Your task to perform on an android device: change the clock display to digital Image 0: 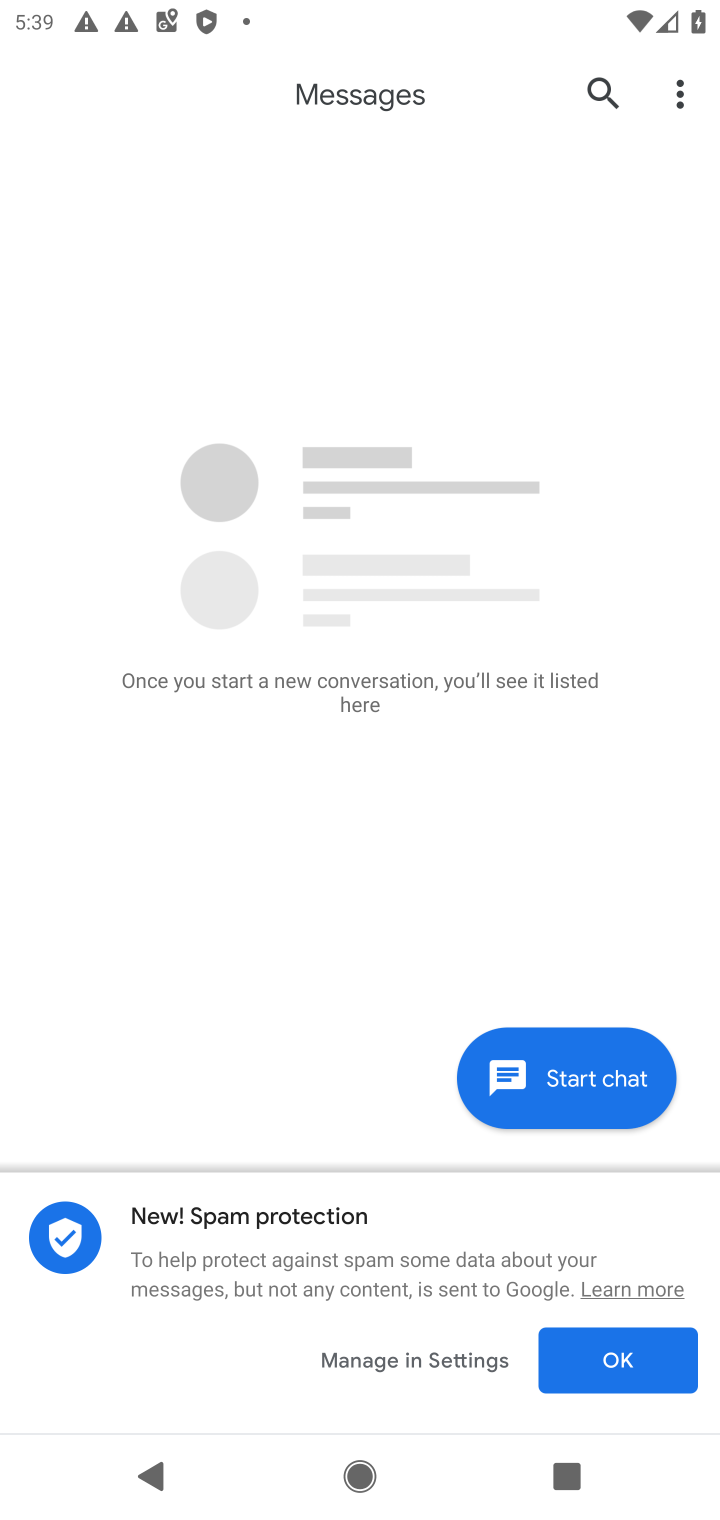
Step 0: press home button
Your task to perform on an android device: change the clock display to digital Image 1: 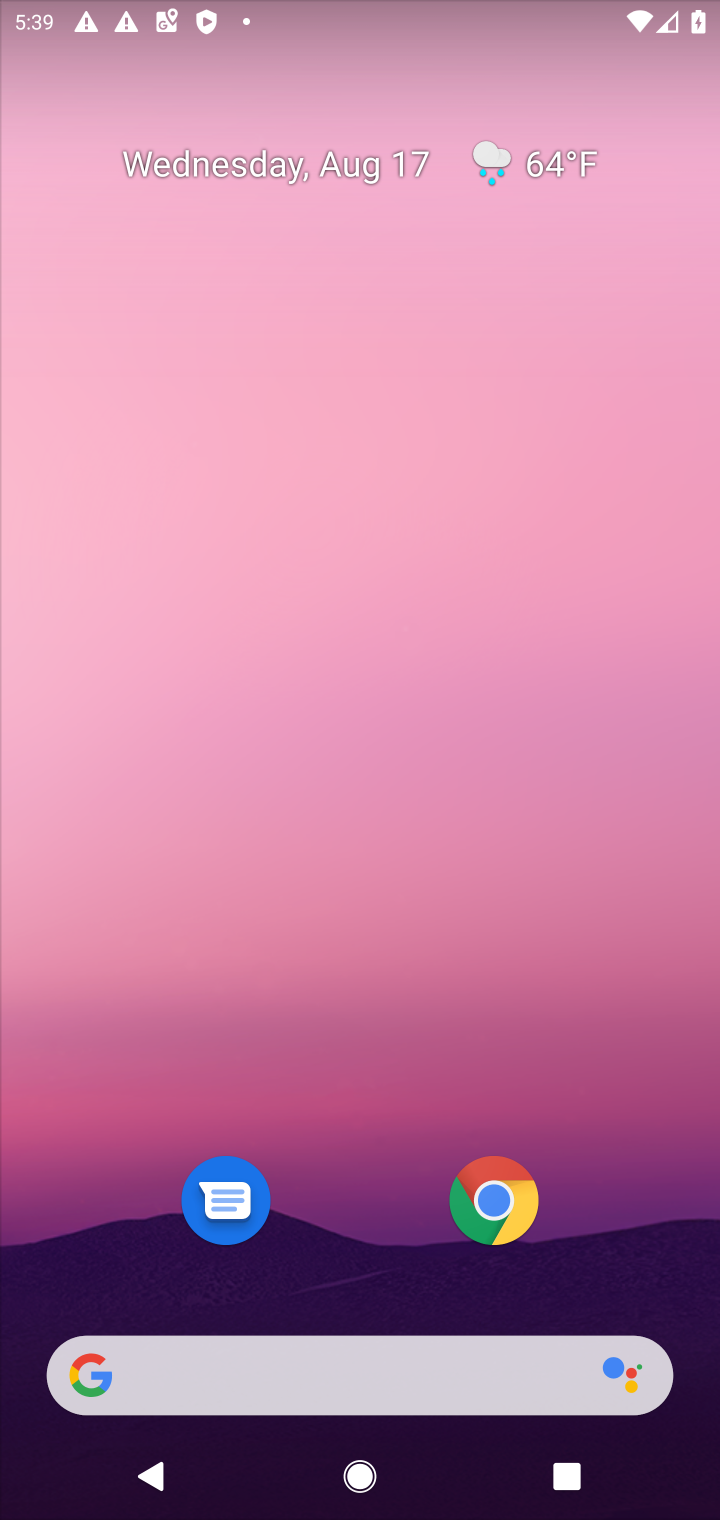
Step 1: drag from (381, 640) to (381, 184)
Your task to perform on an android device: change the clock display to digital Image 2: 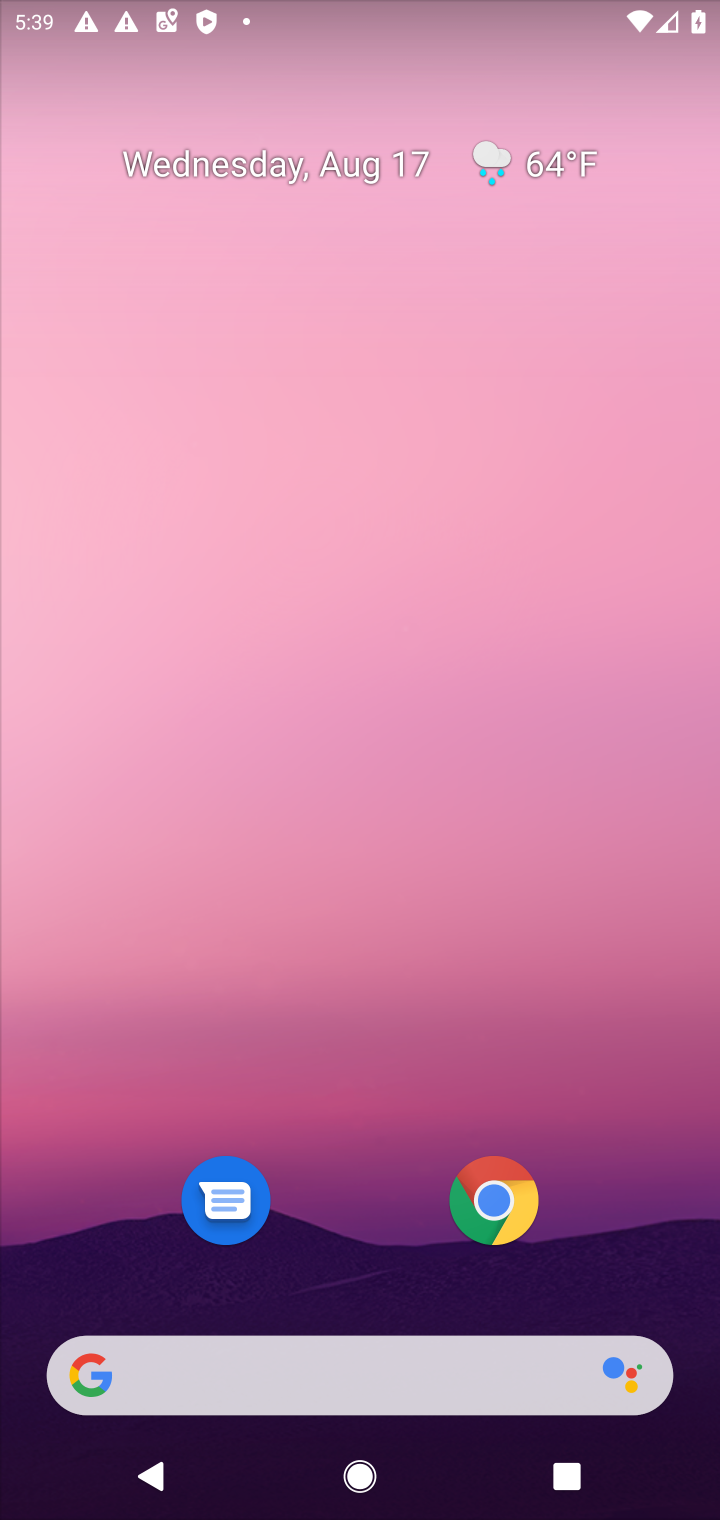
Step 2: drag from (362, 1279) to (367, 0)
Your task to perform on an android device: change the clock display to digital Image 3: 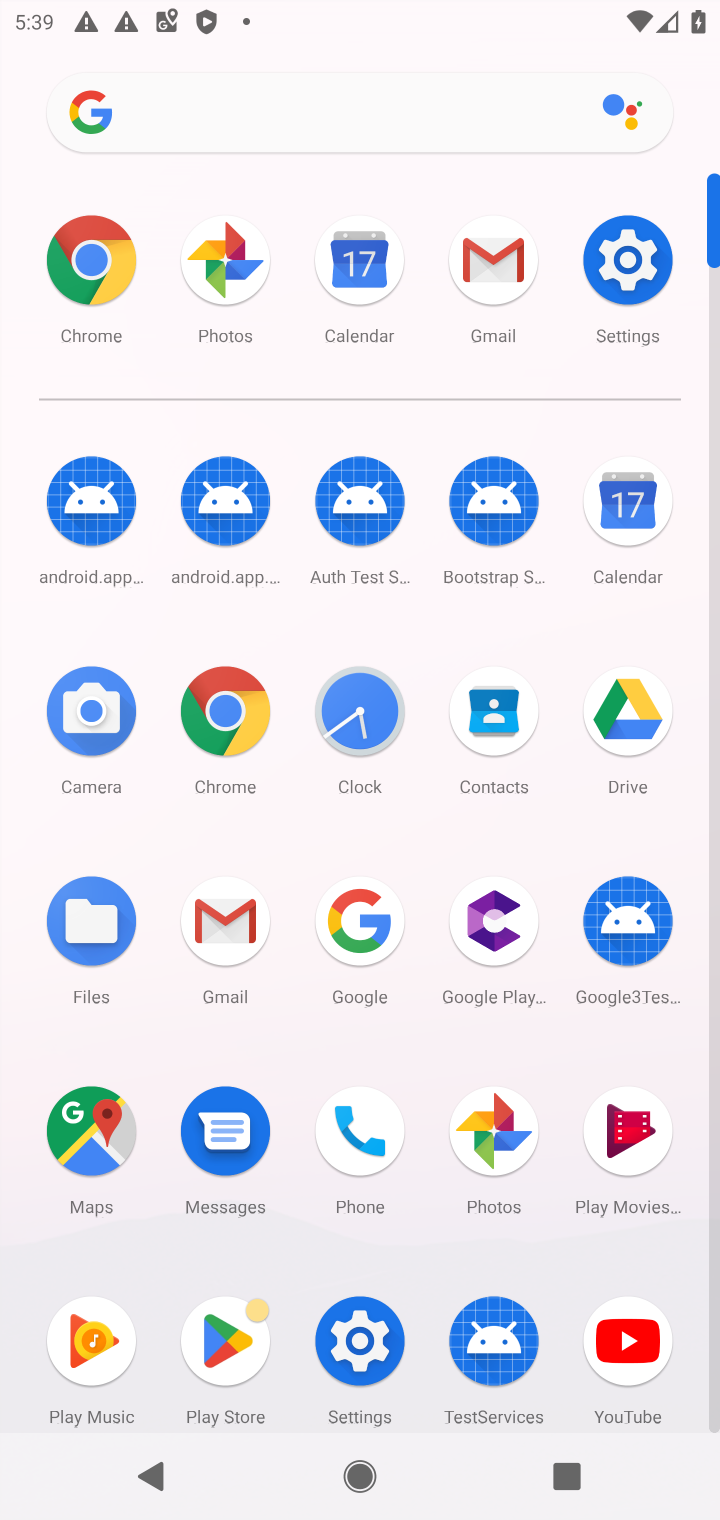
Step 3: click (345, 705)
Your task to perform on an android device: change the clock display to digital Image 4: 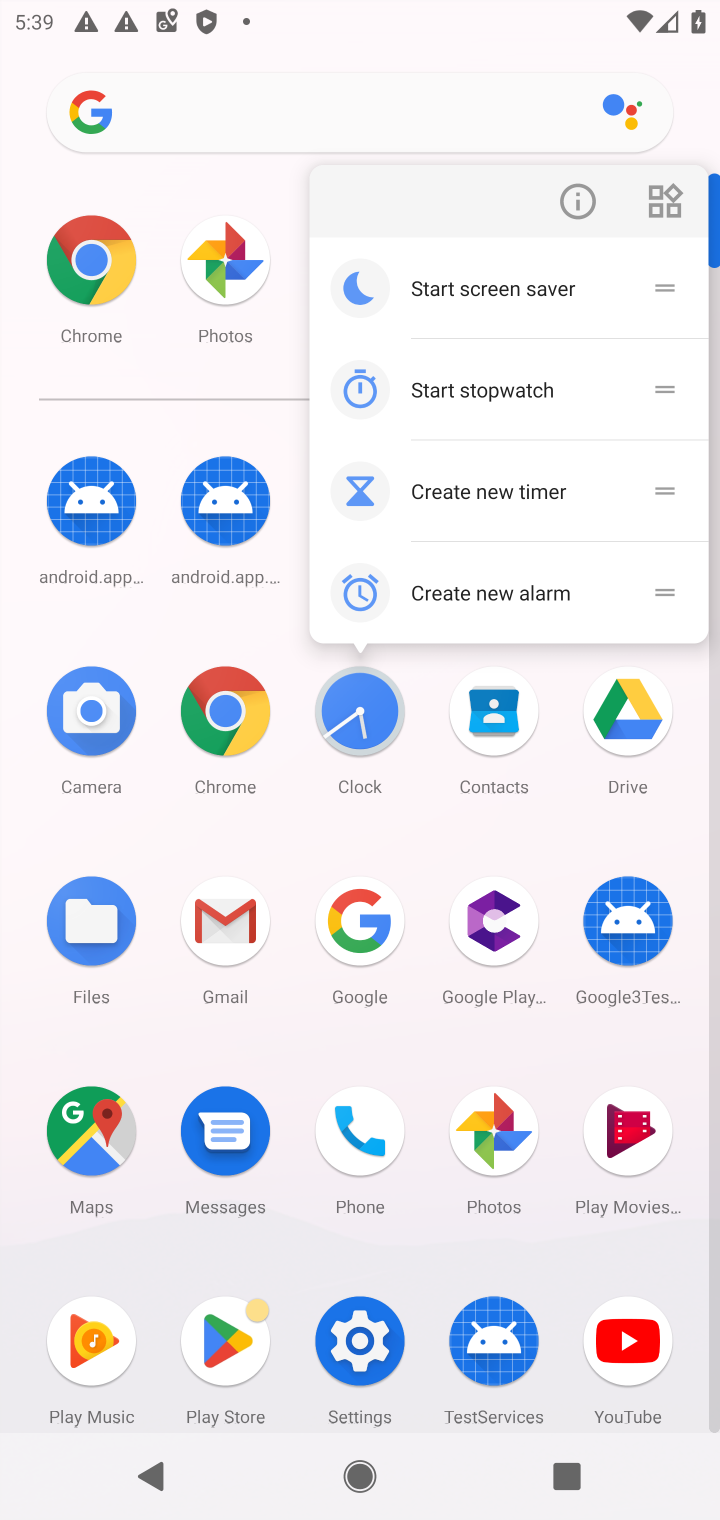
Step 4: click (344, 703)
Your task to perform on an android device: change the clock display to digital Image 5: 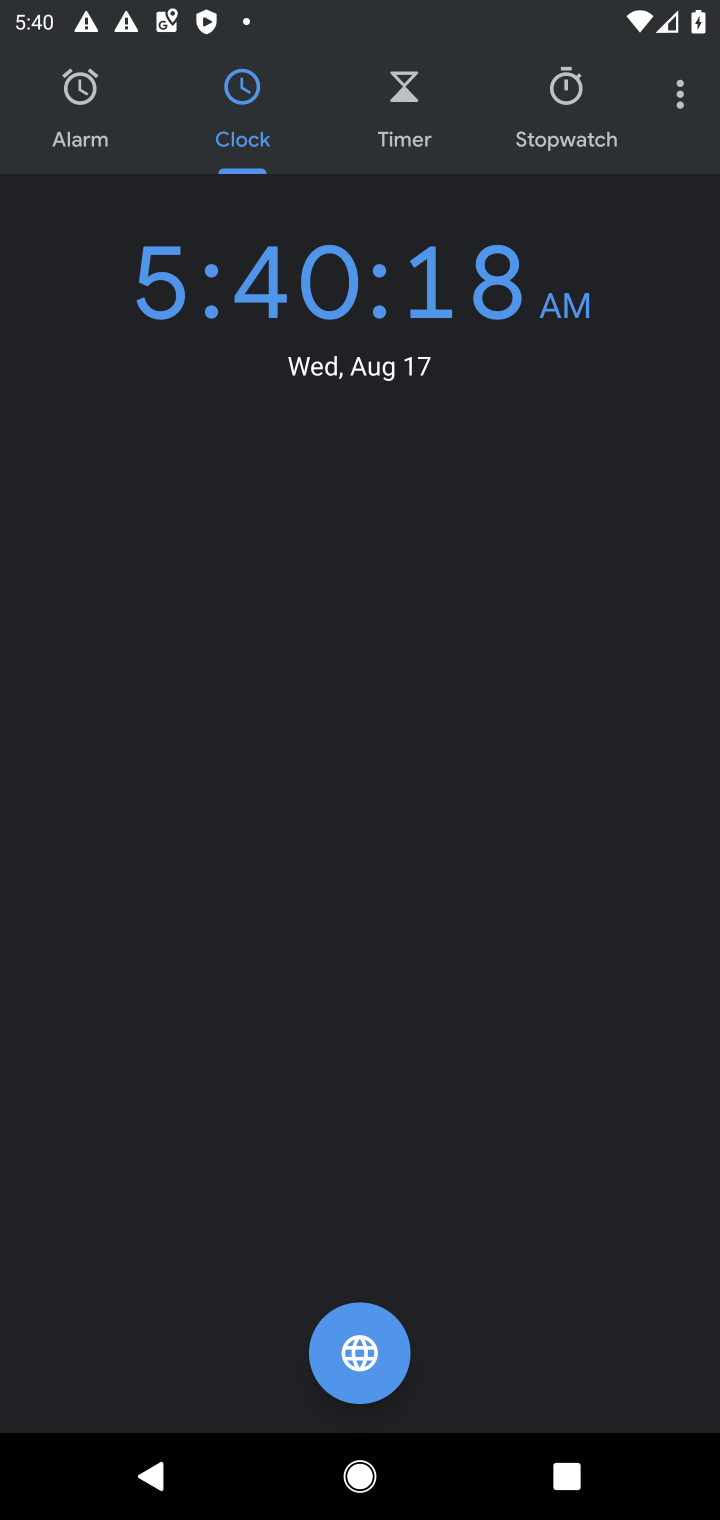
Step 5: click (676, 93)
Your task to perform on an android device: change the clock display to digital Image 6: 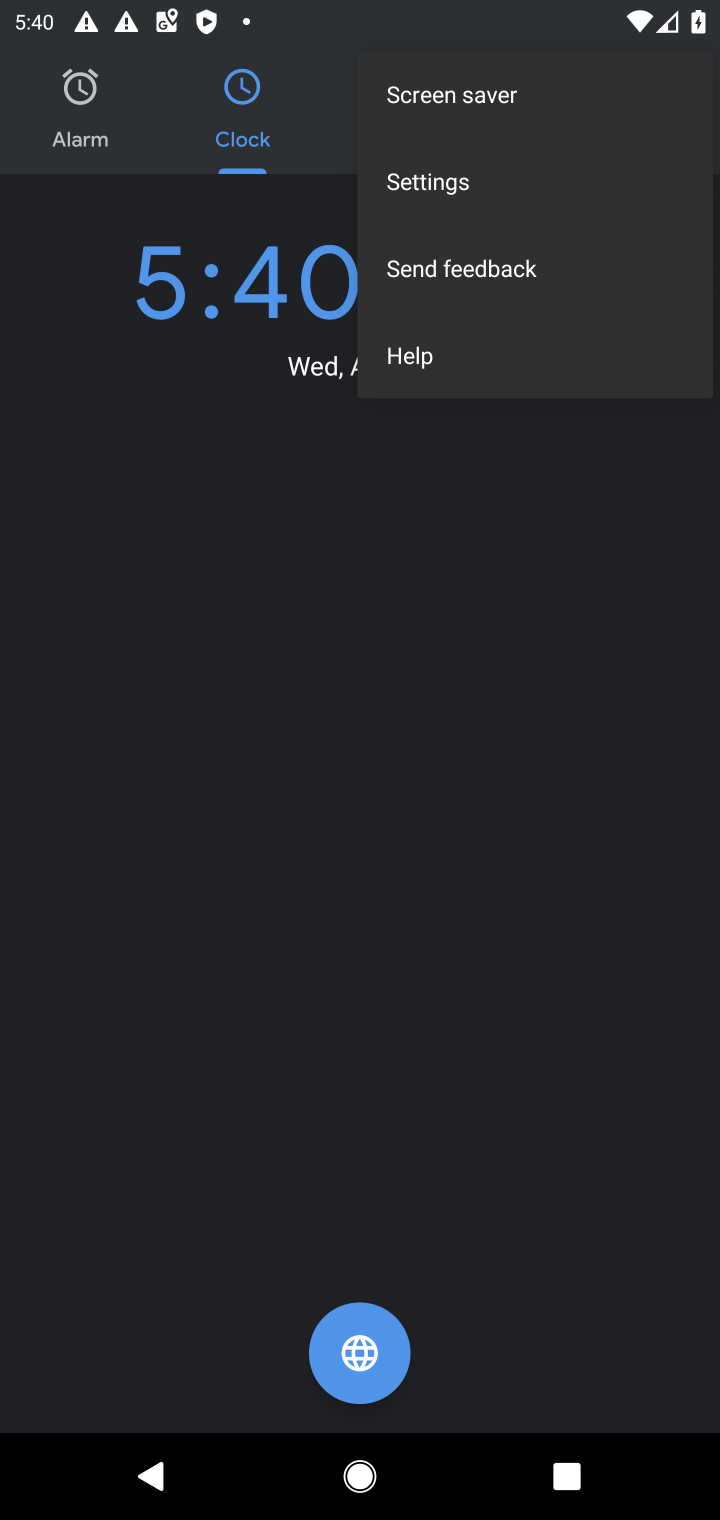
Step 6: click (420, 185)
Your task to perform on an android device: change the clock display to digital Image 7: 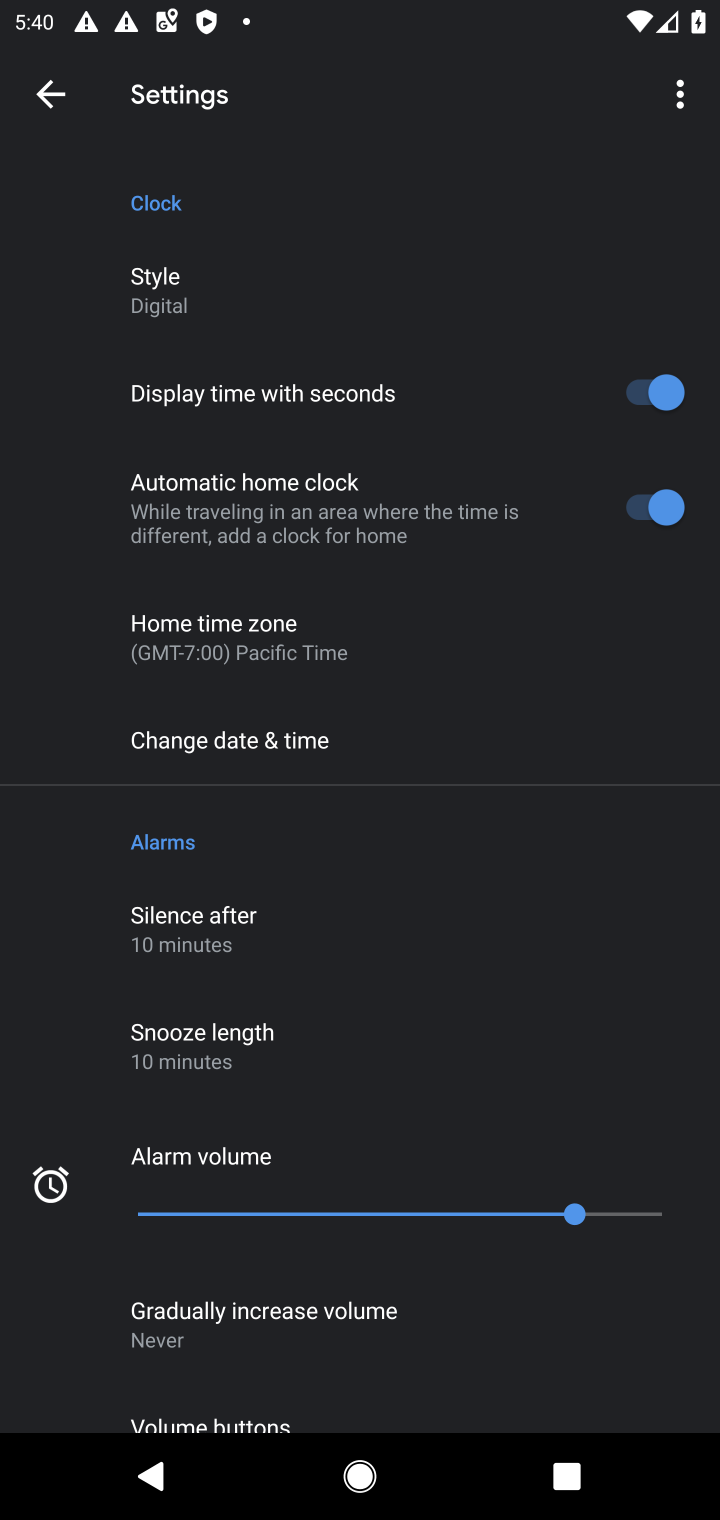
Step 7: task complete